Your task to perform on an android device: read, delete, or share a saved page in the chrome app Image 0: 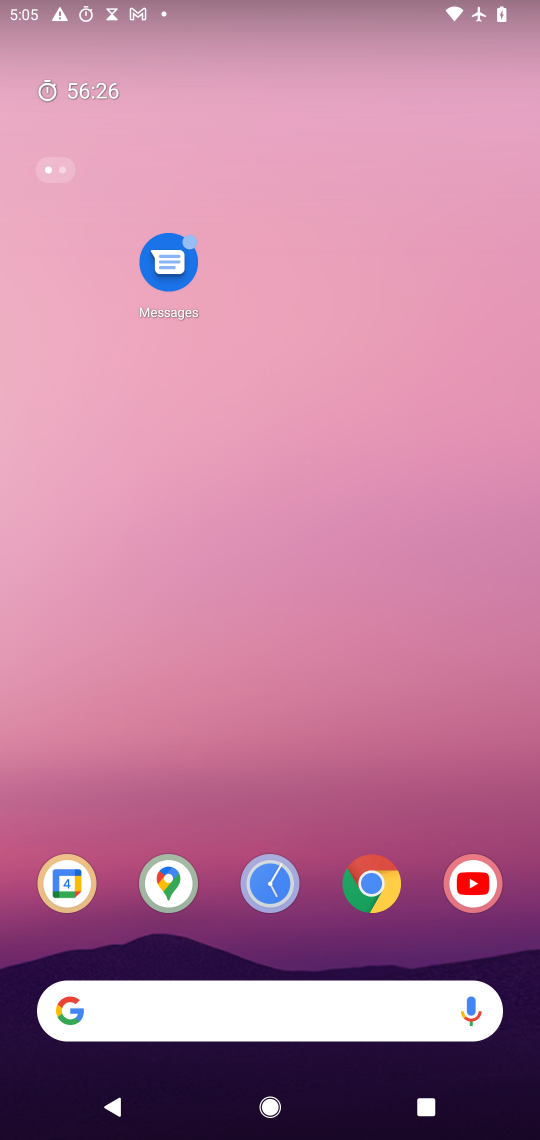
Step 0: drag from (314, 939) to (289, 116)
Your task to perform on an android device: read, delete, or share a saved page in the chrome app Image 1: 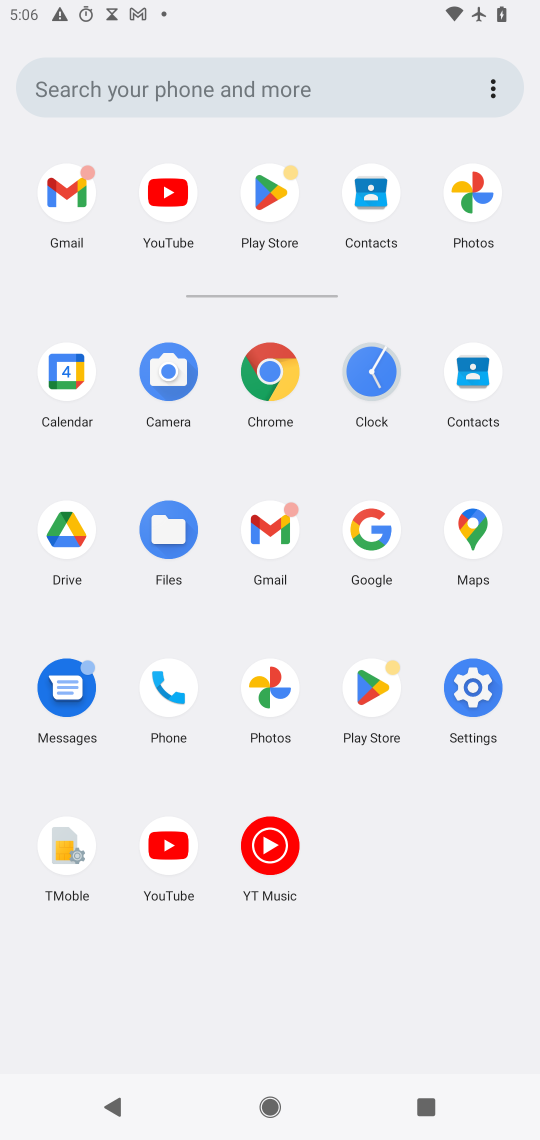
Step 1: click (272, 371)
Your task to perform on an android device: read, delete, or share a saved page in the chrome app Image 2: 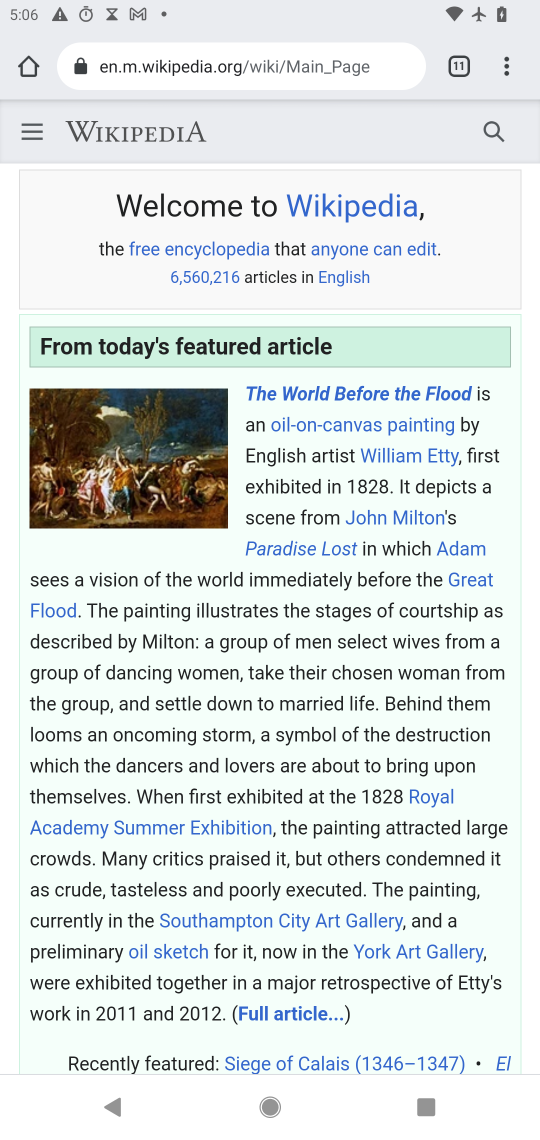
Step 2: click (503, 74)
Your task to perform on an android device: read, delete, or share a saved page in the chrome app Image 3: 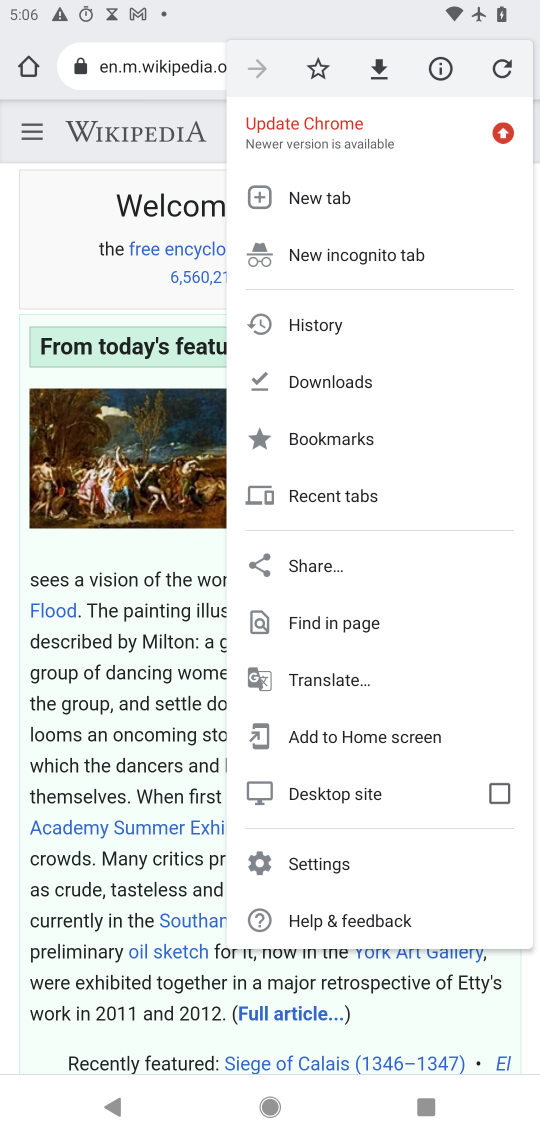
Step 3: click (338, 379)
Your task to perform on an android device: read, delete, or share a saved page in the chrome app Image 4: 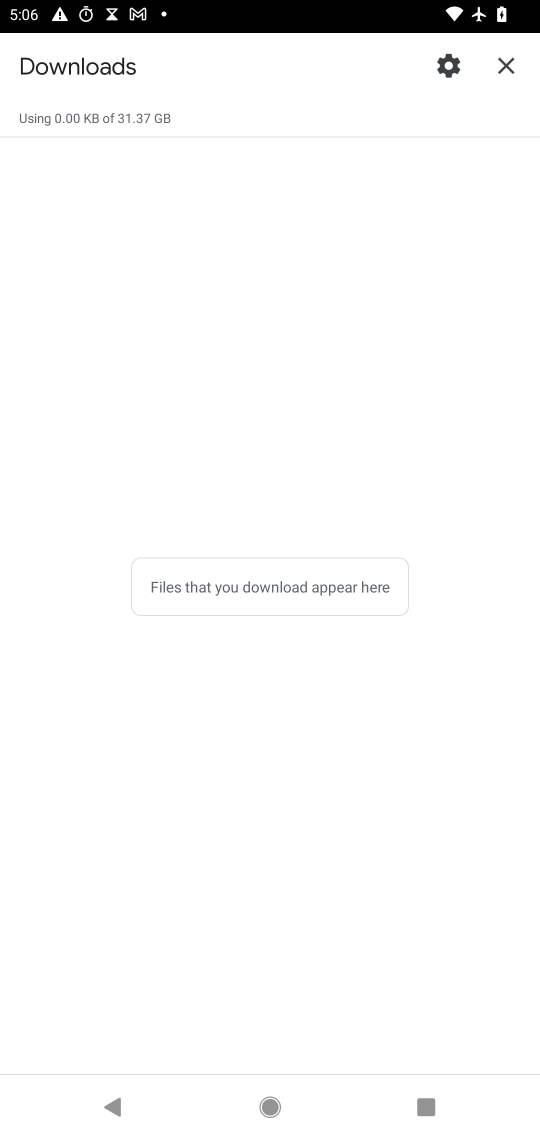
Step 4: task complete